Your task to perform on an android device: change alarm snooze length Image 0: 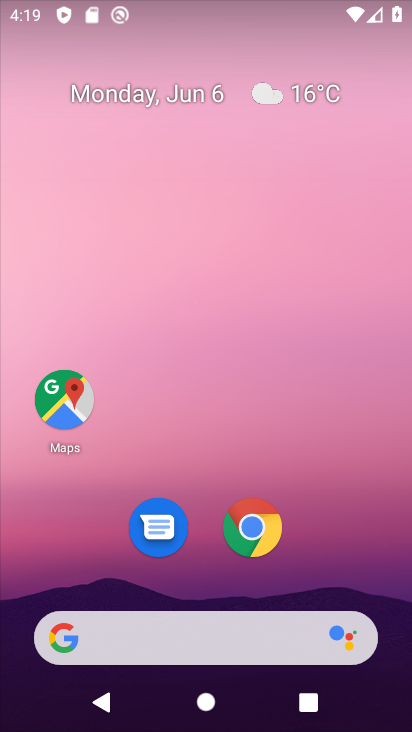
Step 0: drag from (234, 605) to (219, 187)
Your task to perform on an android device: change alarm snooze length Image 1: 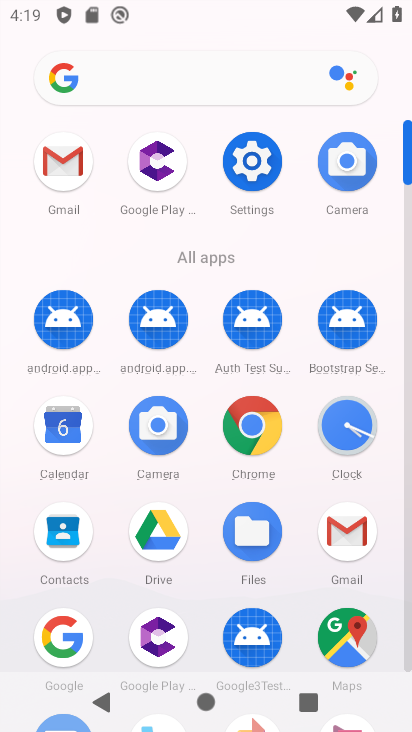
Step 1: click (351, 432)
Your task to perform on an android device: change alarm snooze length Image 2: 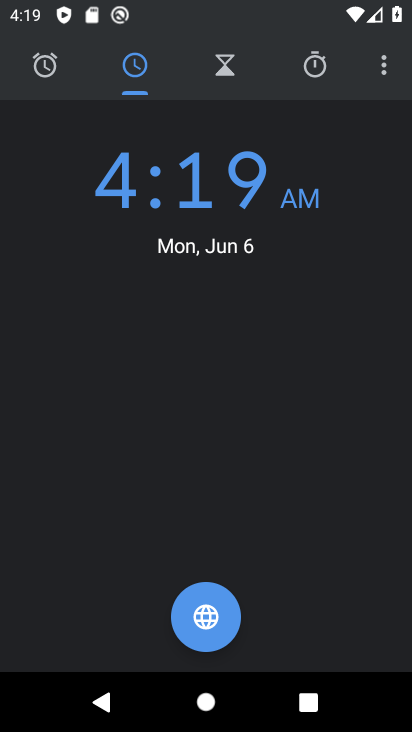
Step 2: click (384, 67)
Your task to perform on an android device: change alarm snooze length Image 3: 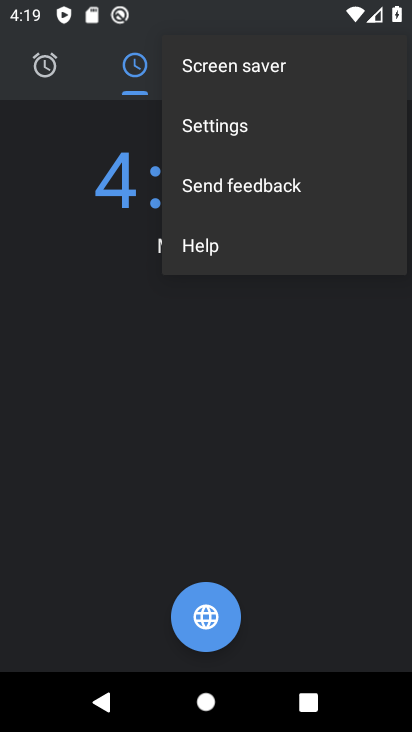
Step 3: click (239, 124)
Your task to perform on an android device: change alarm snooze length Image 4: 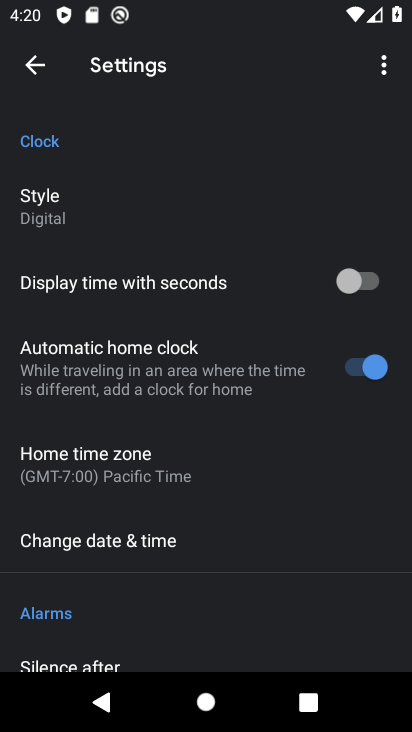
Step 4: drag from (94, 647) to (72, 391)
Your task to perform on an android device: change alarm snooze length Image 5: 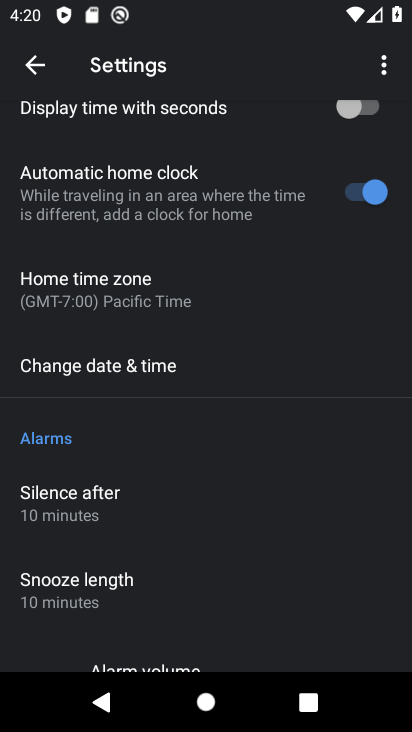
Step 5: click (76, 577)
Your task to perform on an android device: change alarm snooze length Image 6: 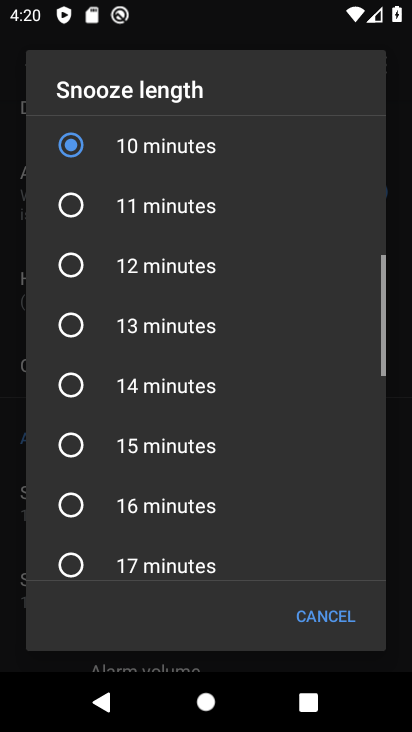
Step 6: click (123, 504)
Your task to perform on an android device: change alarm snooze length Image 7: 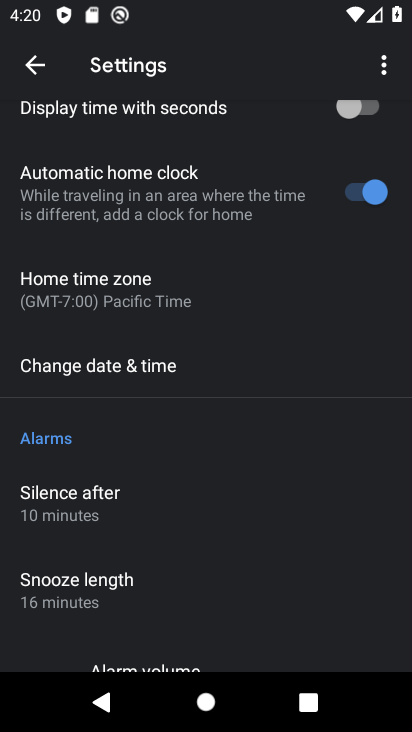
Step 7: task complete